Your task to perform on an android device: delete location history Image 0: 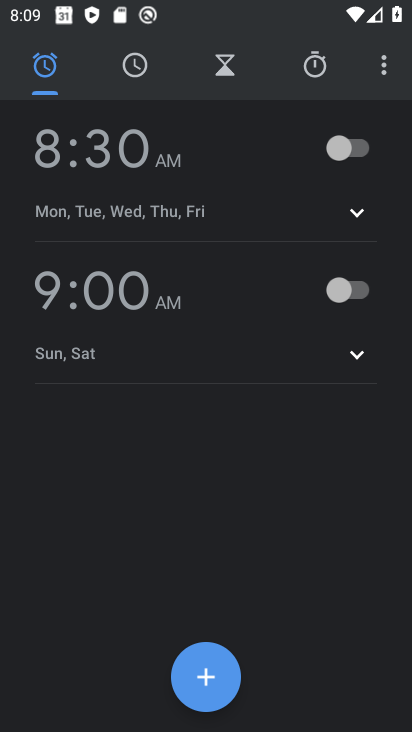
Step 0: press home button
Your task to perform on an android device: delete location history Image 1: 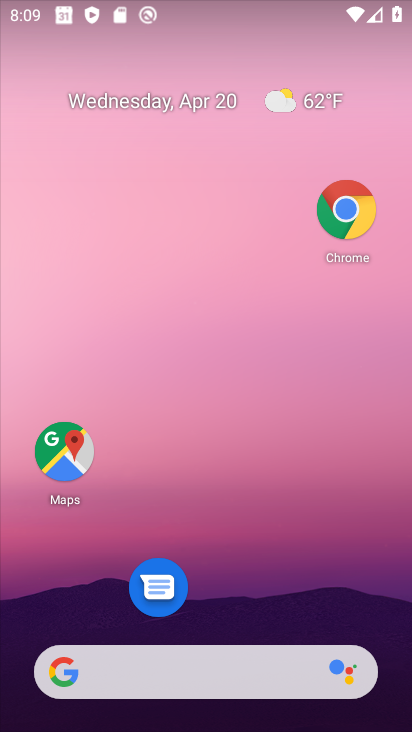
Step 1: drag from (262, 607) to (280, 35)
Your task to perform on an android device: delete location history Image 2: 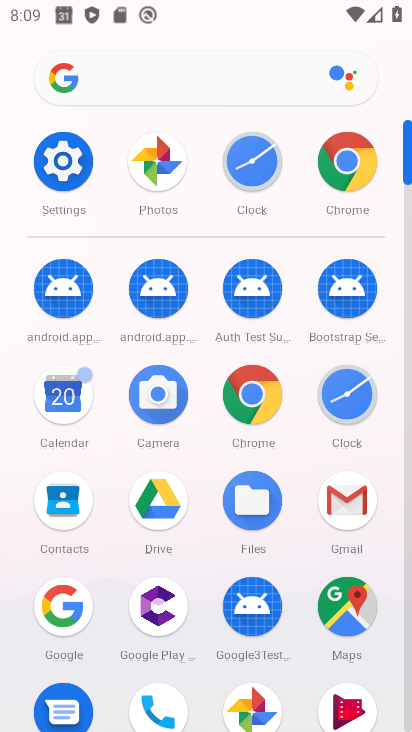
Step 2: click (359, 620)
Your task to perform on an android device: delete location history Image 3: 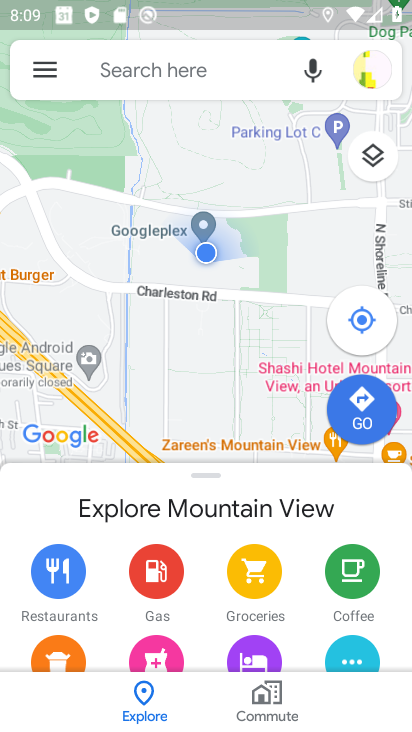
Step 3: click (51, 69)
Your task to perform on an android device: delete location history Image 4: 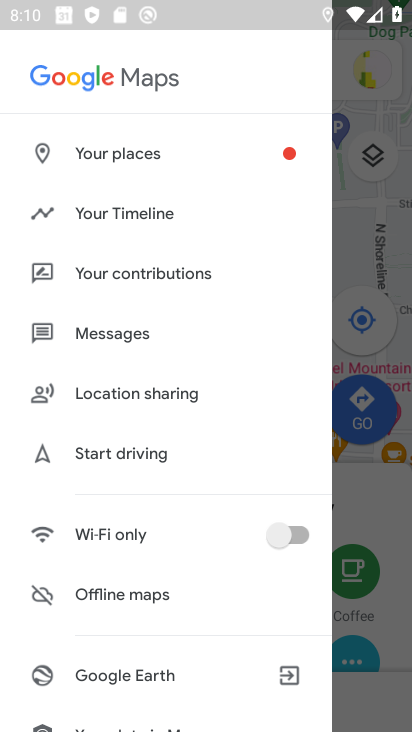
Step 4: click (195, 230)
Your task to perform on an android device: delete location history Image 5: 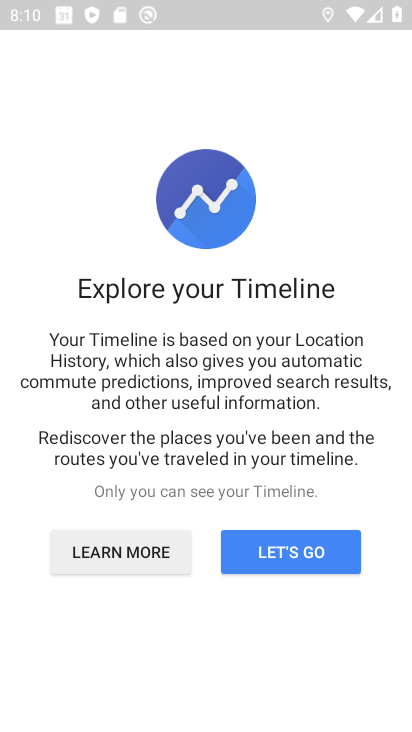
Step 5: click (307, 556)
Your task to perform on an android device: delete location history Image 6: 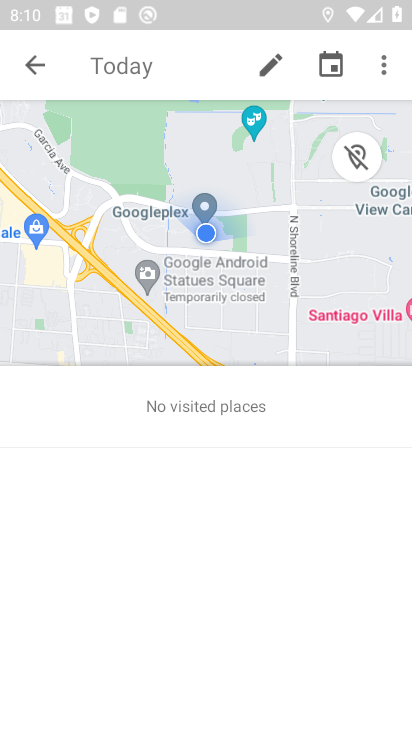
Step 6: click (398, 73)
Your task to perform on an android device: delete location history Image 7: 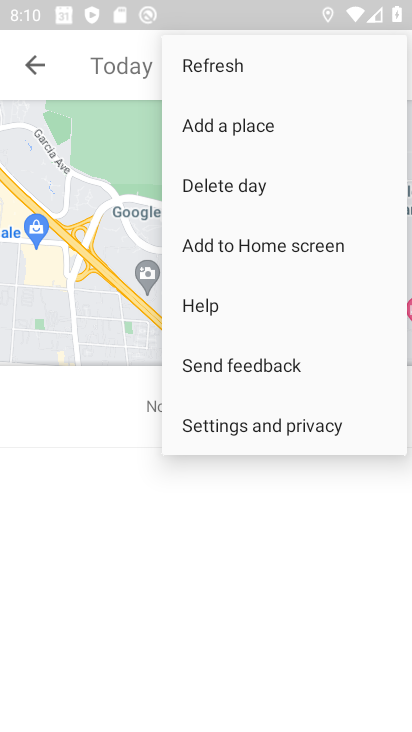
Step 7: click (270, 438)
Your task to perform on an android device: delete location history Image 8: 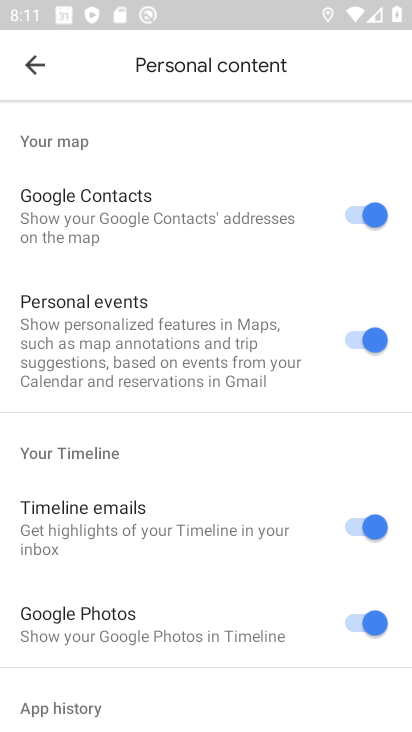
Step 8: drag from (153, 590) to (182, 115)
Your task to perform on an android device: delete location history Image 9: 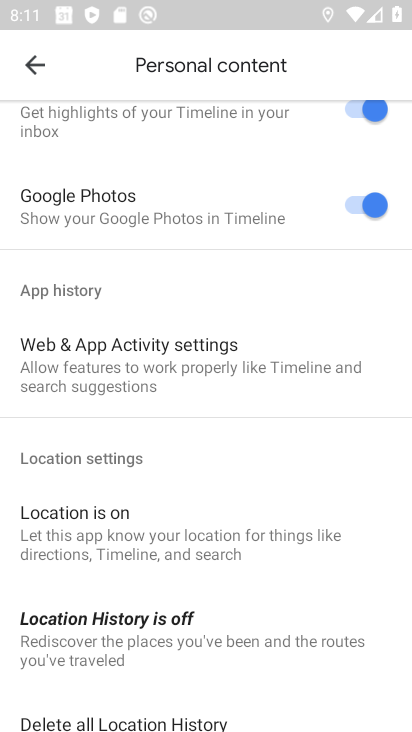
Step 9: drag from (156, 654) to (174, 204)
Your task to perform on an android device: delete location history Image 10: 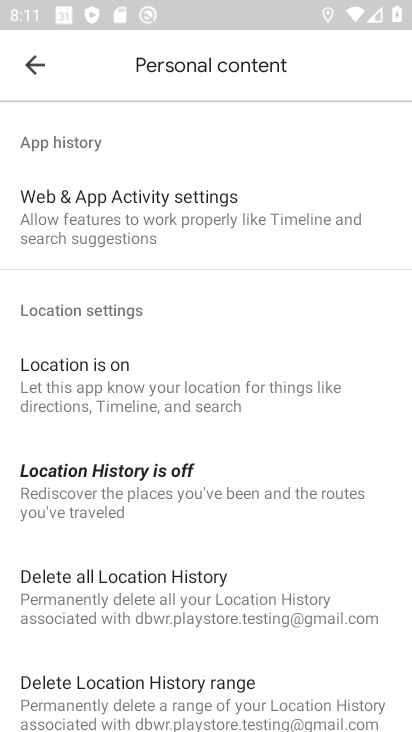
Step 10: click (188, 594)
Your task to perform on an android device: delete location history Image 11: 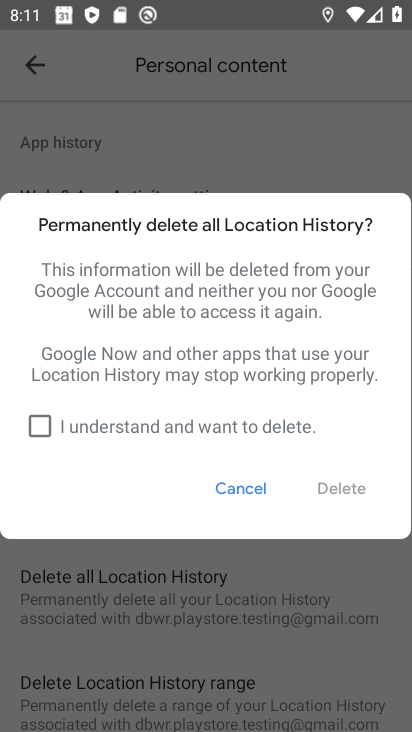
Step 11: click (45, 435)
Your task to perform on an android device: delete location history Image 12: 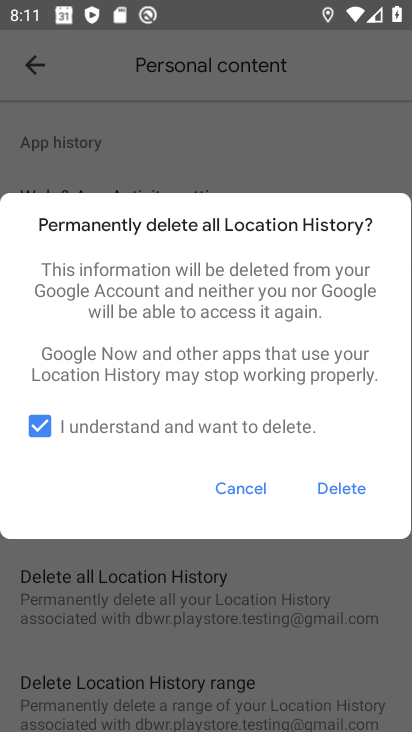
Step 12: click (367, 497)
Your task to perform on an android device: delete location history Image 13: 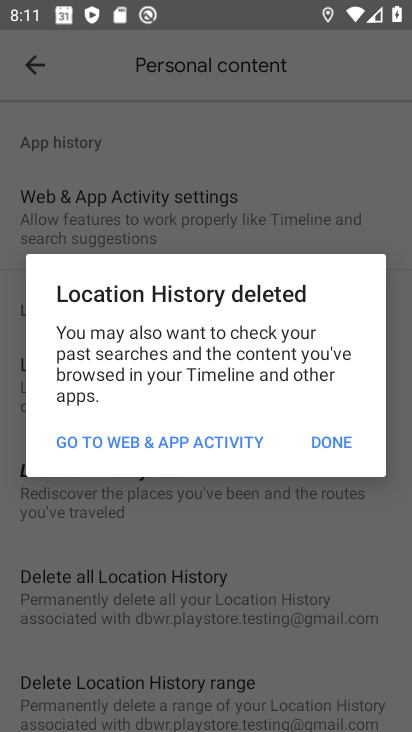
Step 13: click (349, 456)
Your task to perform on an android device: delete location history Image 14: 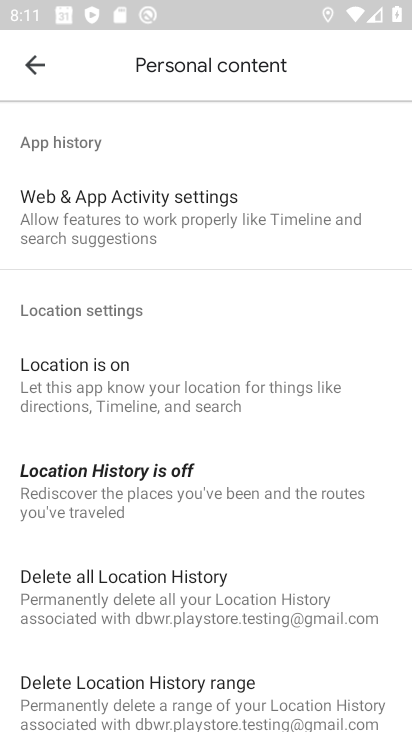
Step 14: task complete